Your task to perform on an android device: Open calendar and show me the fourth week of next month Image 0: 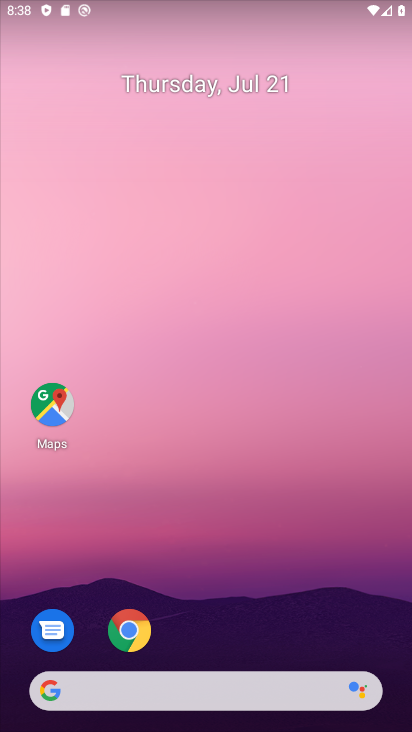
Step 0: drag from (276, 673) to (359, 3)
Your task to perform on an android device: Open calendar and show me the fourth week of next month Image 1: 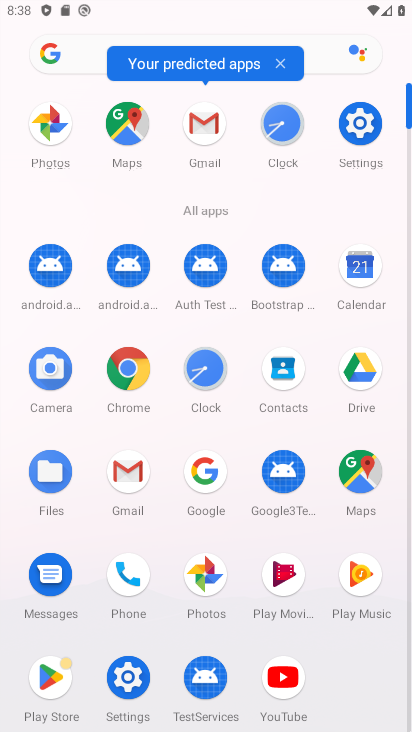
Step 1: click (357, 258)
Your task to perform on an android device: Open calendar and show me the fourth week of next month Image 2: 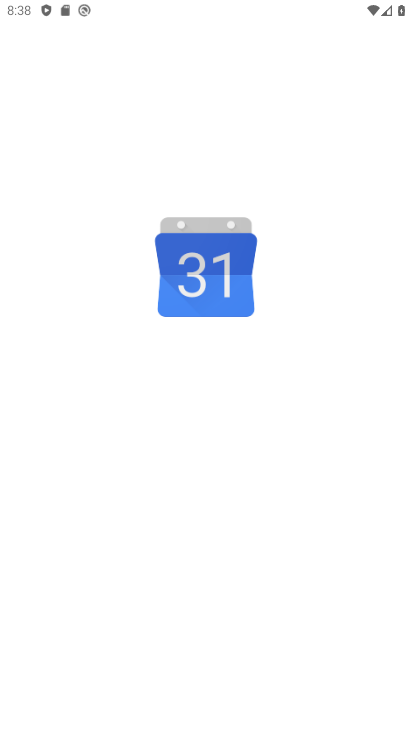
Step 2: click (367, 271)
Your task to perform on an android device: Open calendar and show me the fourth week of next month Image 3: 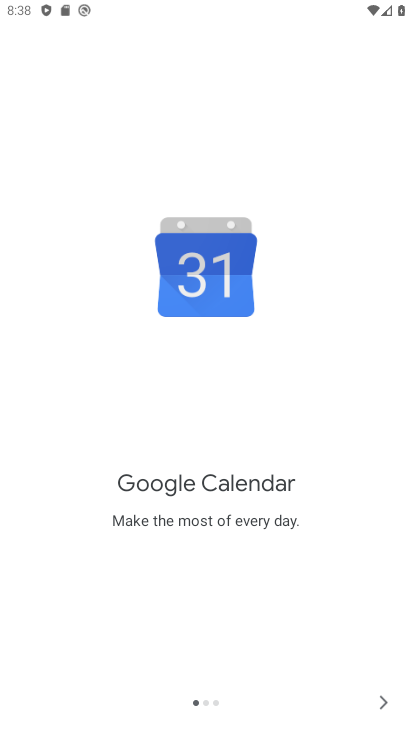
Step 3: click (373, 708)
Your task to perform on an android device: Open calendar and show me the fourth week of next month Image 4: 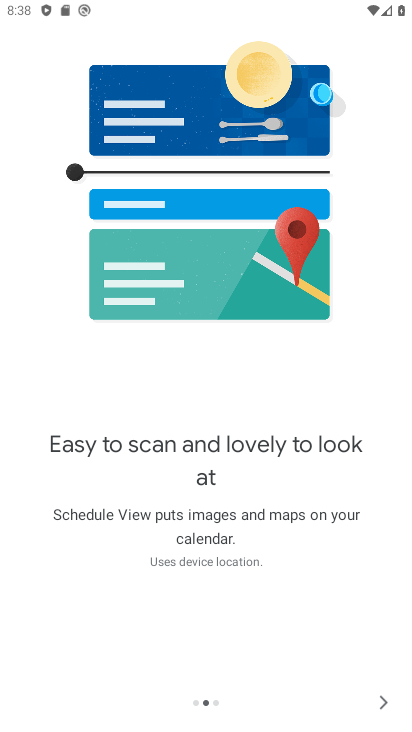
Step 4: click (373, 708)
Your task to perform on an android device: Open calendar and show me the fourth week of next month Image 5: 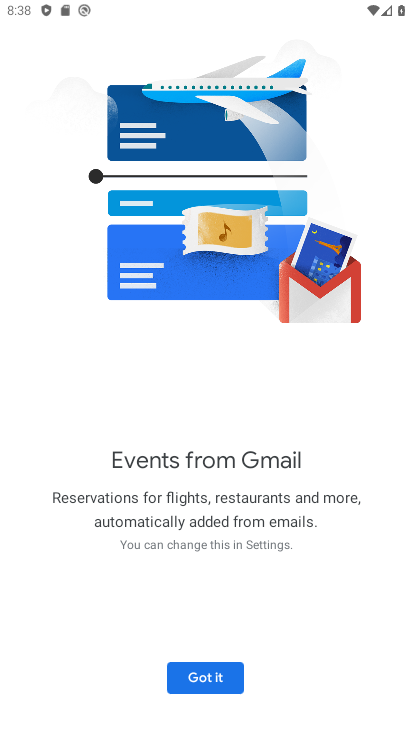
Step 5: click (213, 682)
Your task to perform on an android device: Open calendar and show me the fourth week of next month Image 6: 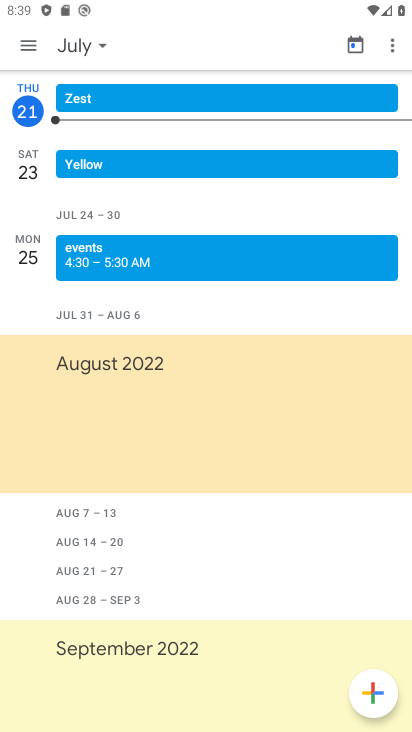
Step 6: click (64, 43)
Your task to perform on an android device: Open calendar and show me the fourth week of next month Image 7: 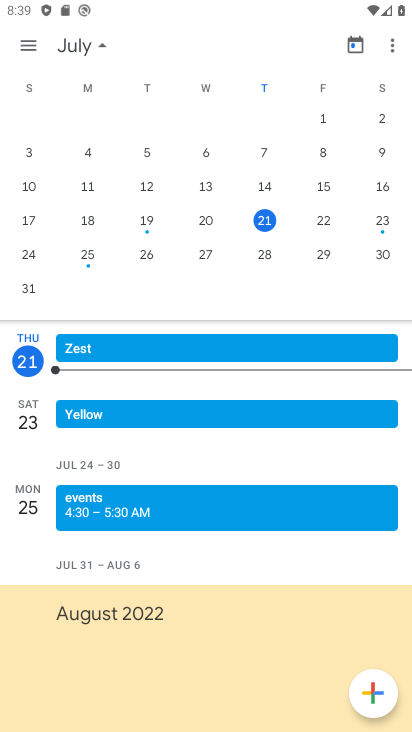
Step 7: drag from (366, 175) to (2, 162)
Your task to perform on an android device: Open calendar and show me the fourth week of next month Image 8: 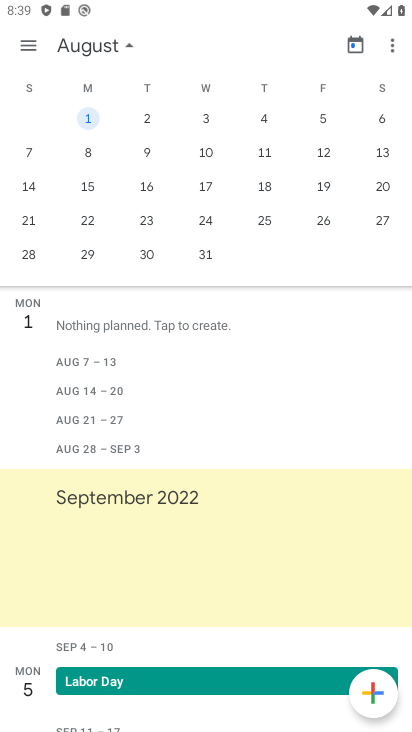
Step 8: click (23, 217)
Your task to perform on an android device: Open calendar and show me the fourth week of next month Image 9: 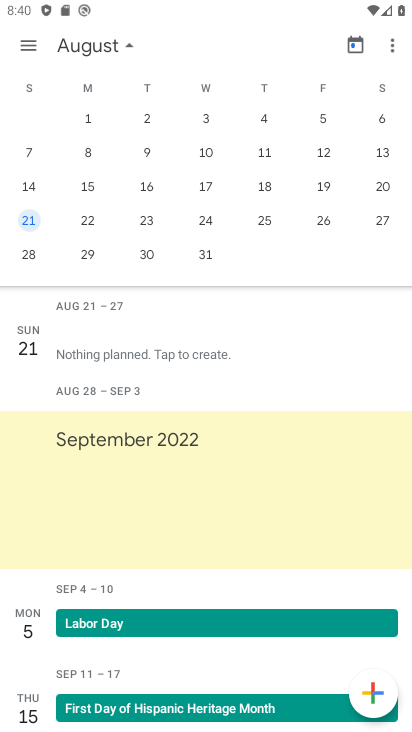
Step 9: task complete